Your task to perform on an android device: Go to eBay Image 0: 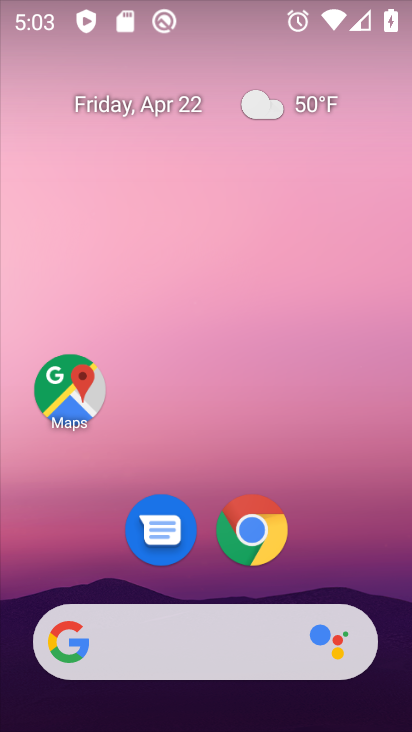
Step 0: drag from (329, 497) to (322, 147)
Your task to perform on an android device: Go to eBay Image 1: 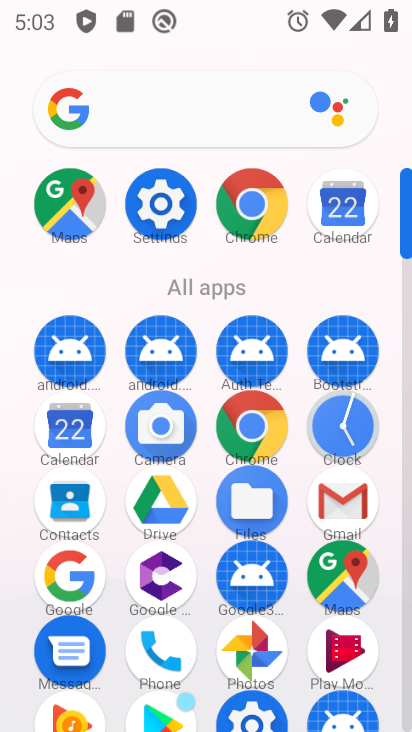
Step 1: click (245, 417)
Your task to perform on an android device: Go to eBay Image 2: 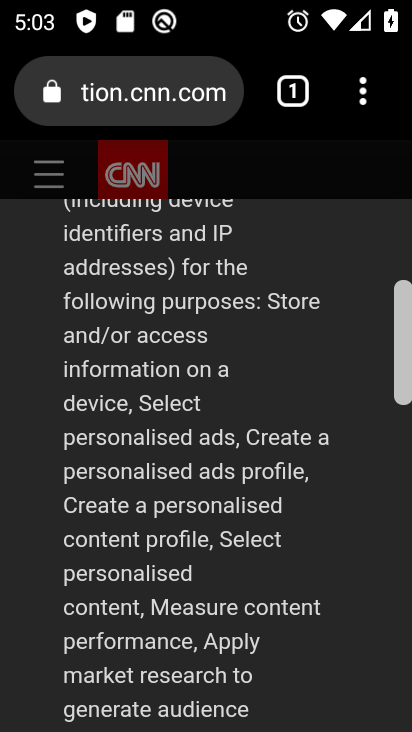
Step 2: drag from (361, 97) to (103, 180)
Your task to perform on an android device: Go to eBay Image 3: 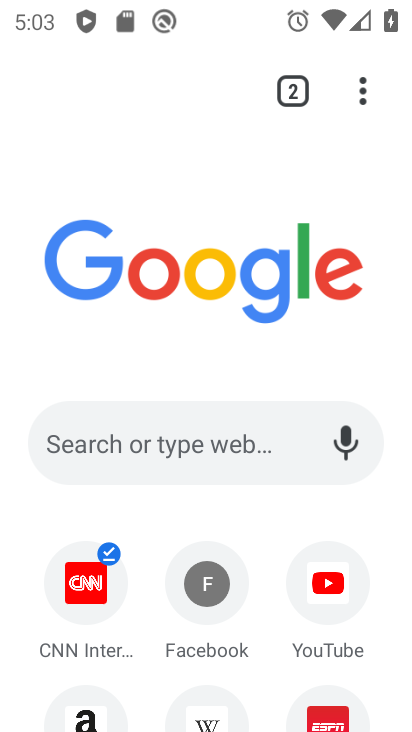
Step 3: click (200, 444)
Your task to perform on an android device: Go to eBay Image 4: 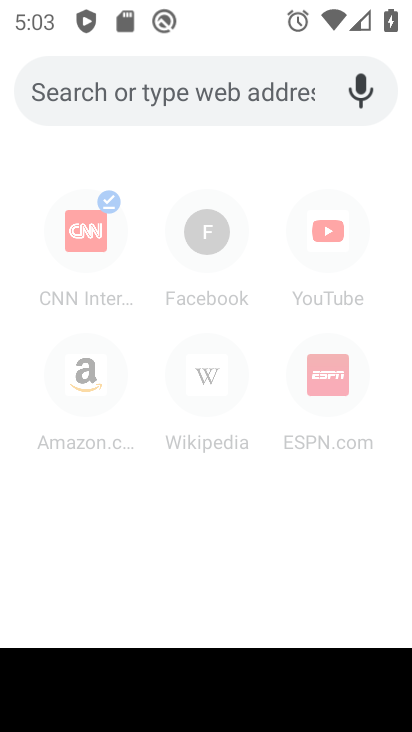
Step 4: type " eBay"
Your task to perform on an android device: Go to eBay Image 5: 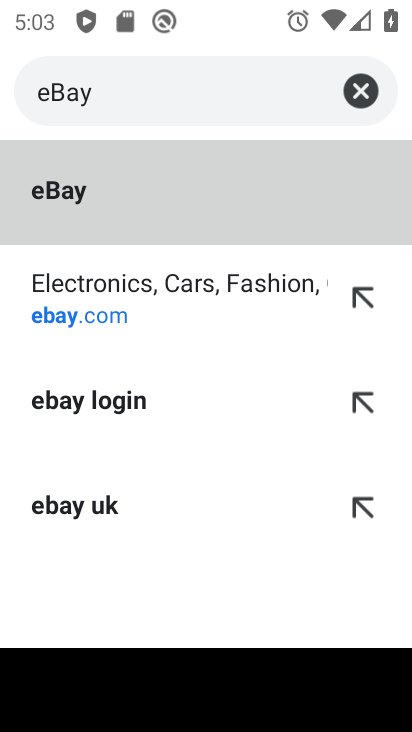
Step 5: click (70, 178)
Your task to perform on an android device: Go to eBay Image 6: 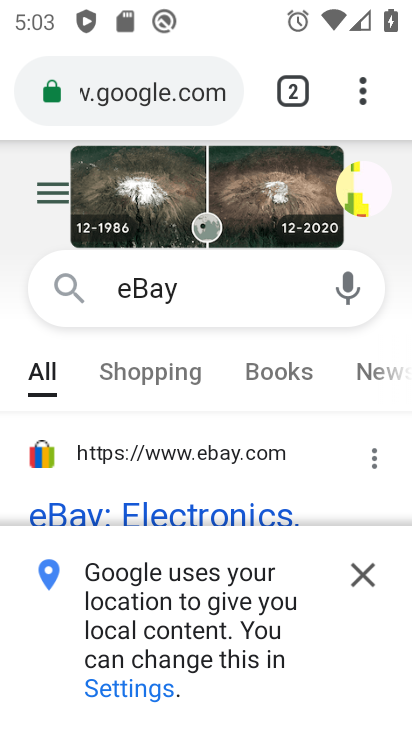
Step 6: click (357, 568)
Your task to perform on an android device: Go to eBay Image 7: 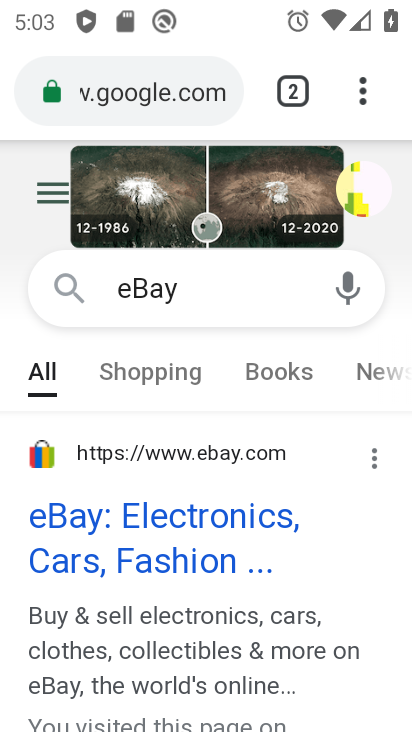
Step 7: drag from (289, 591) to (277, 362)
Your task to perform on an android device: Go to eBay Image 8: 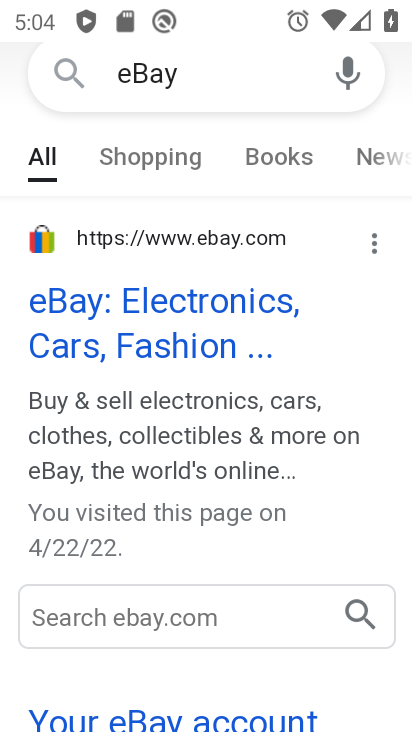
Step 8: click (147, 164)
Your task to perform on an android device: Go to eBay Image 9: 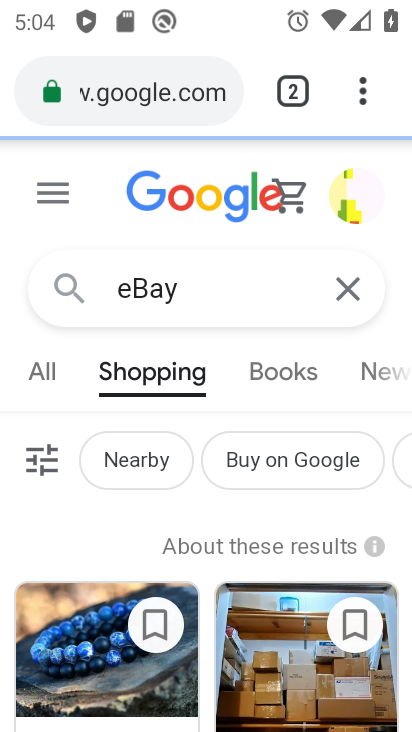
Step 9: drag from (305, 507) to (305, 252)
Your task to perform on an android device: Go to eBay Image 10: 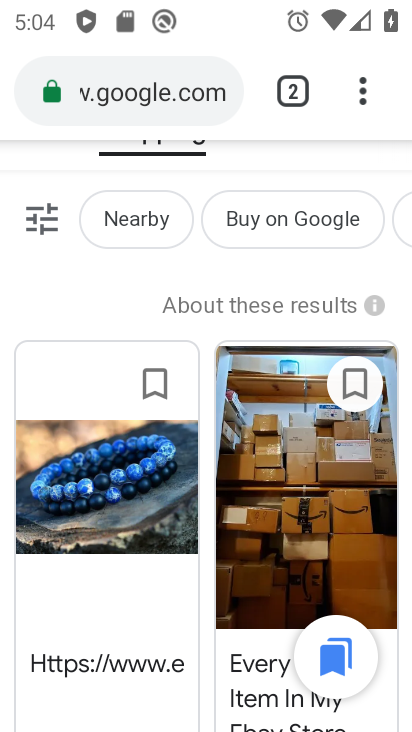
Step 10: drag from (160, 286) to (158, 457)
Your task to perform on an android device: Go to eBay Image 11: 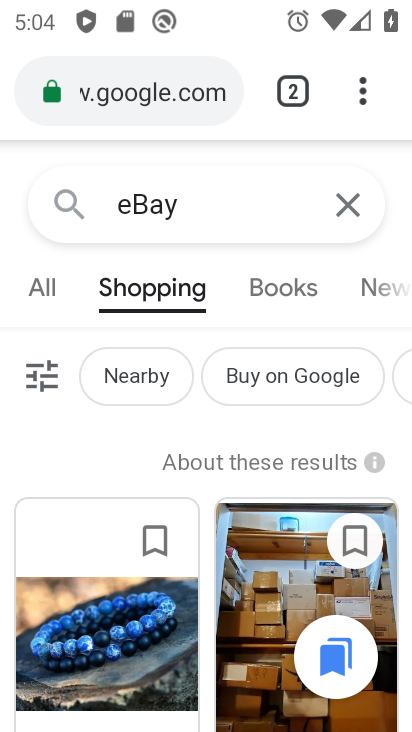
Step 11: click (40, 290)
Your task to perform on an android device: Go to eBay Image 12: 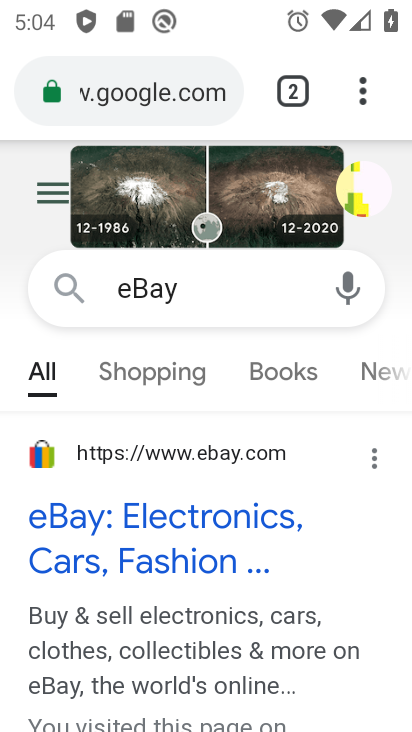
Step 12: click (197, 521)
Your task to perform on an android device: Go to eBay Image 13: 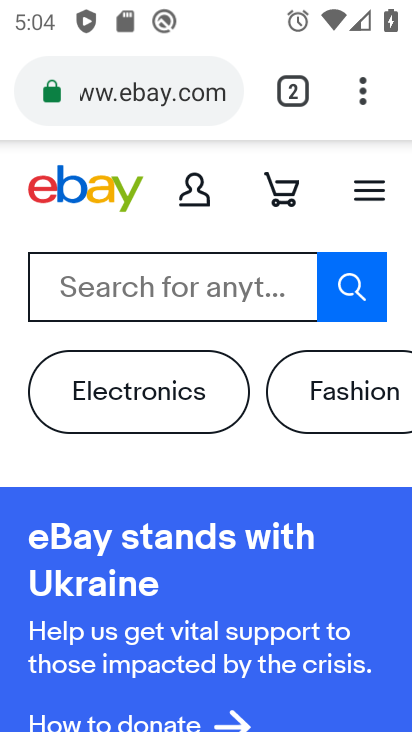
Step 13: task complete